Your task to perform on an android device: see tabs open on other devices in the chrome app Image 0: 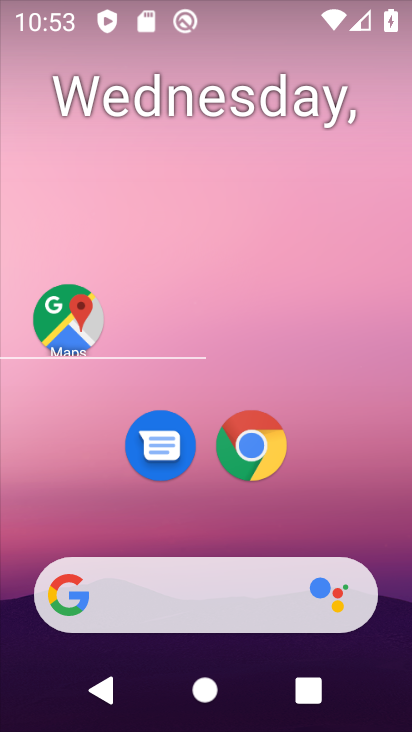
Step 0: click (213, 106)
Your task to perform on an android device: see tabs open on other devices in the chrome app Image 1: 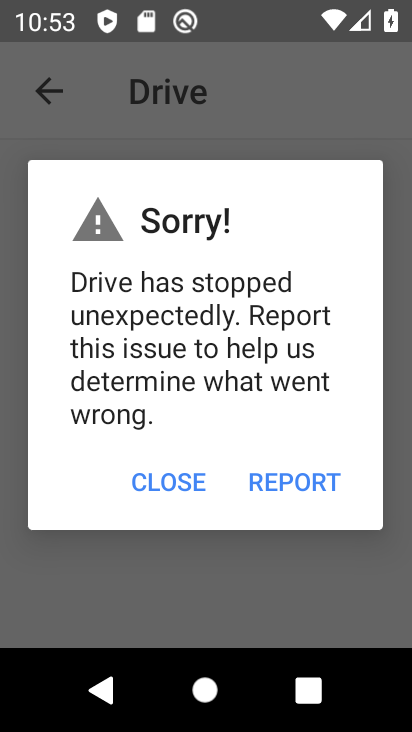
Step 1: press home button
Your task to perform on an android device: see tabs open on other devices in the chrome app Image 2: 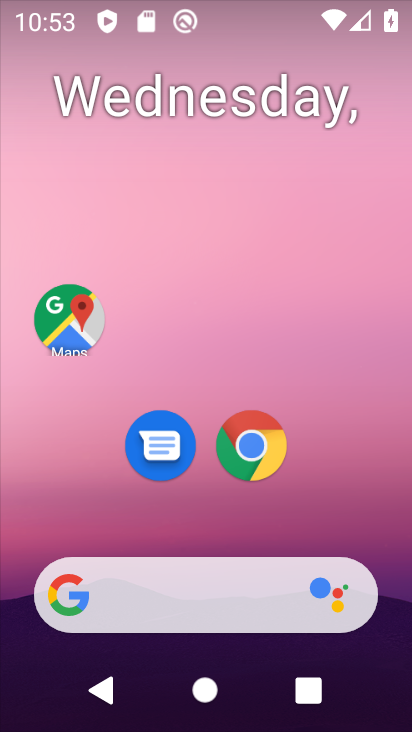
Step 2: click (261, 440)
Your task to perform on an android device: see tabs open on other devices in the chrome app Image 3: 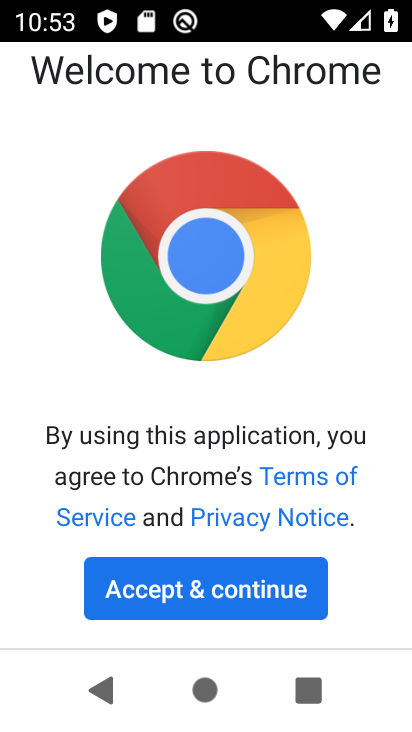
Step 3: click (223, 584)
Your task to perform on an android device: see tabs open on other devices in the chrome app Image 4: 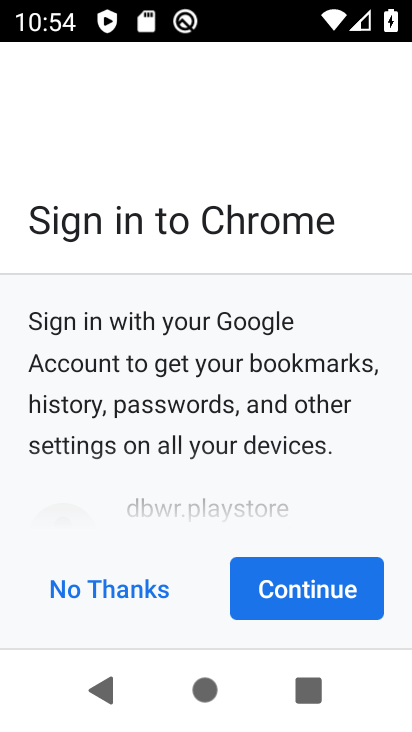
Step 4: click (267, 594)
Your task to perform on an android device: see tabs open on other devices in the chrome app Image 5: 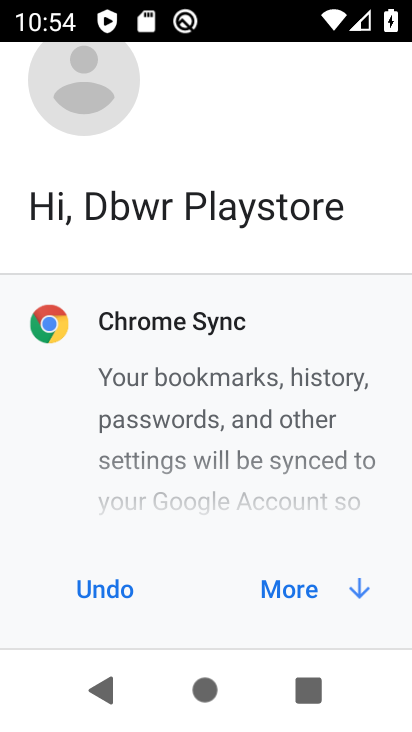
Step 5: click (292, 594)
Your task to perform on an android device: see tabs open on other devices in the chrome app Image 6: 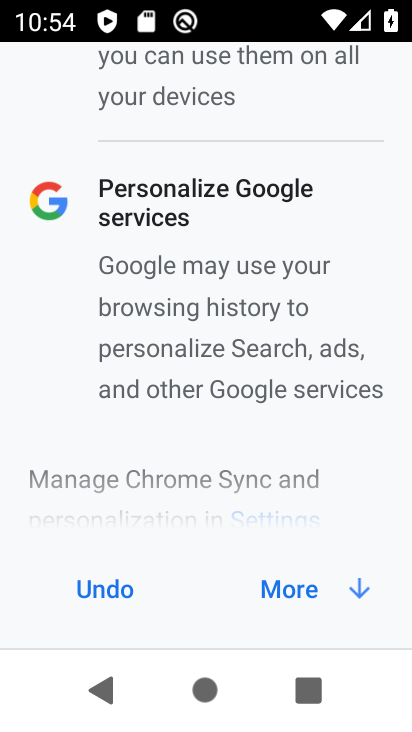
Step 6: click (284, 591)
Your task to perform on an android device: see tabs open on other devices in the chrome app Image 7: 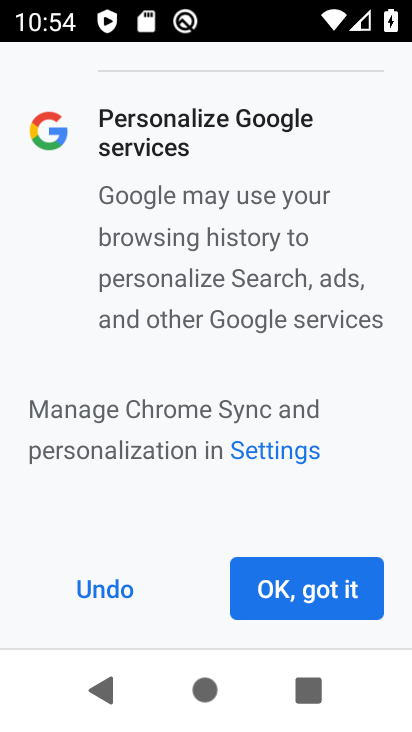
Step 7: click (284, 591)
Your task to perform on an android device: see tabs open on other devices in the chrome app Image 8: 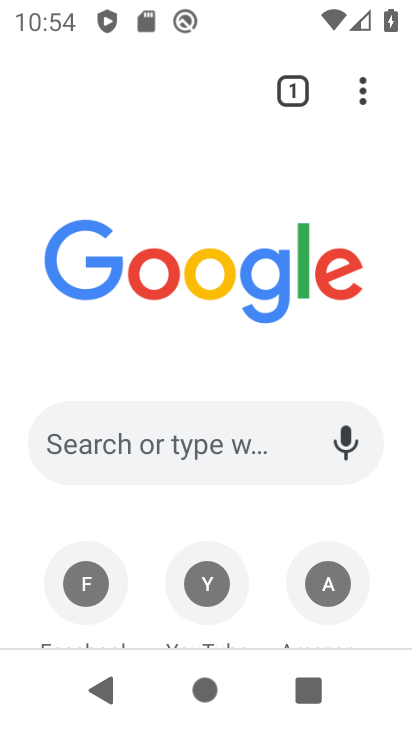
Step 8: click (298, 95)
Your task to perform on an android device: see tabs open on other devices in the chrome app Image 9: 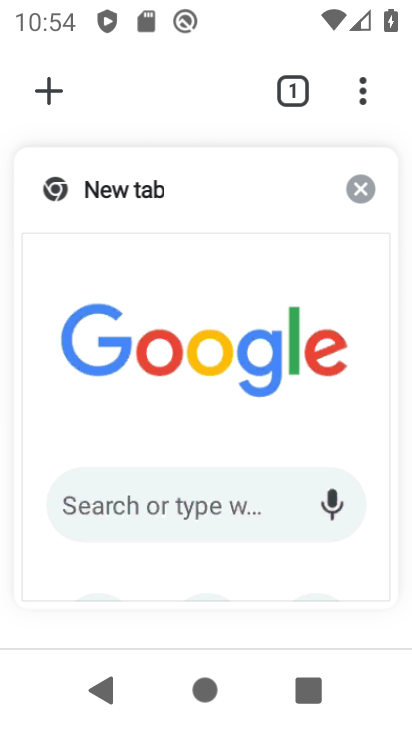
Step 9: task complete